Your task to perform on an android device: Open Chrome and go to the settings page Image 0: 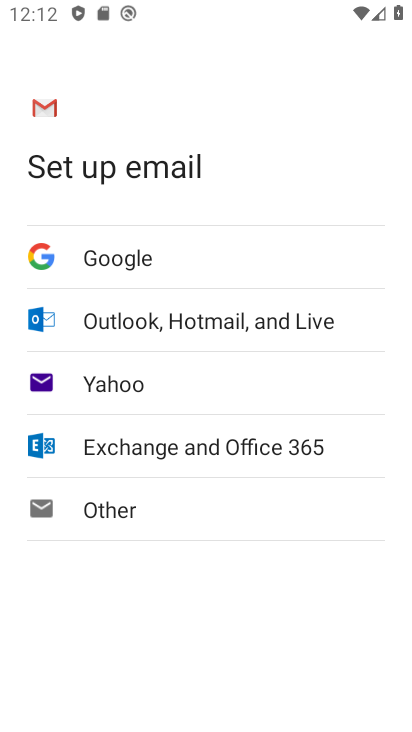
Step 0: press home button
Your task to perform on an android device: Open Chrome and go to the settings page Image 1: 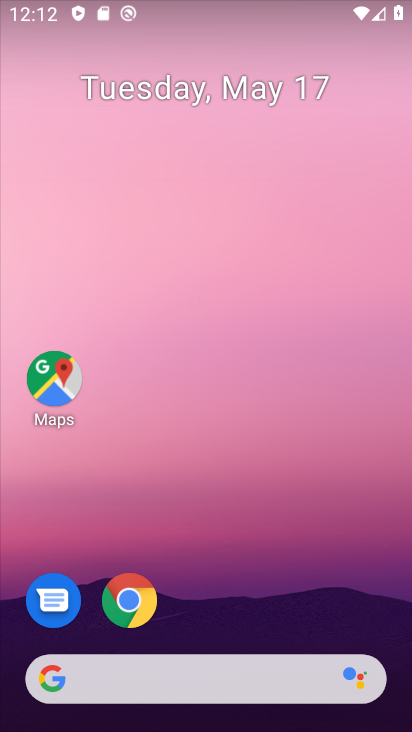
Step 1: click (199, 112)
Your task to perform on an android device: Open Chrome and go to the settings page Image 2: 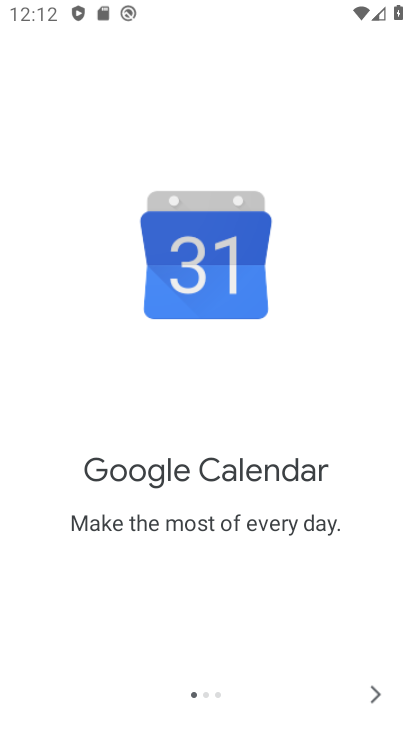
Step 2: press home button
Your task to perform on an android device: Open Chrome and go to the settings page Image 3: 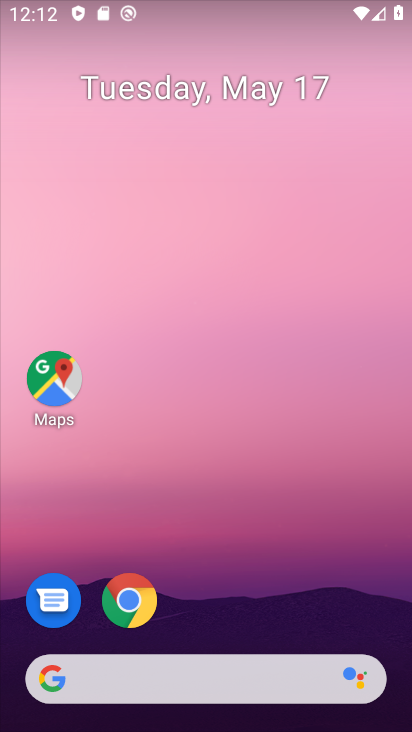
Step 3: click (126, 605)
Your task to perform on an android device: Open Chrome and go to the settings page Image 4: 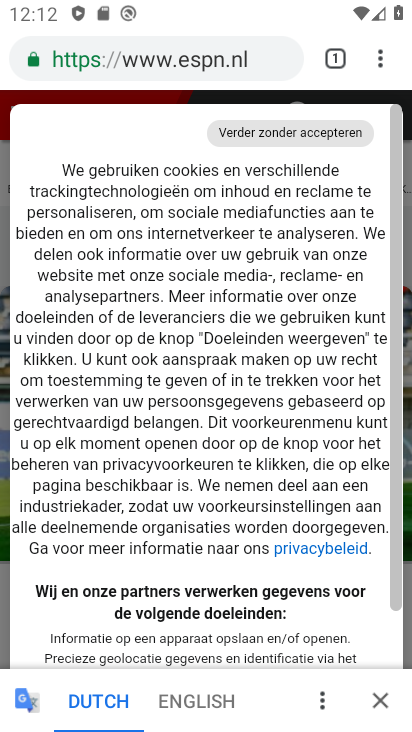
Step 4: click (381, 88)
Your task to perform on an android device: Open Chrome and go to the settings page Image 5: 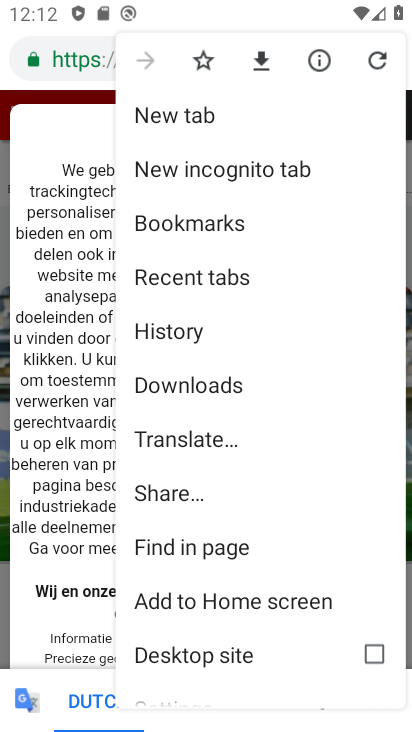
Step 5: drag from (198, 552) to (215, 227)
Your task to perform on an android device: Open Chrome and go to the settings page Image 6: 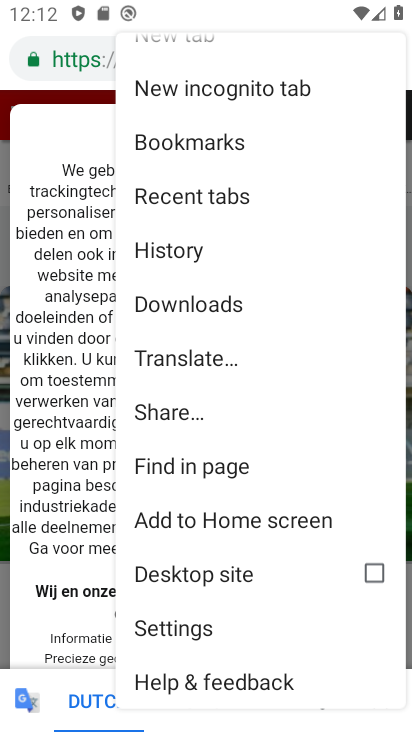
Step 6: click (167, 642)
Your task to perform on an android device: Open Chrome and go to the settings page Image 7: 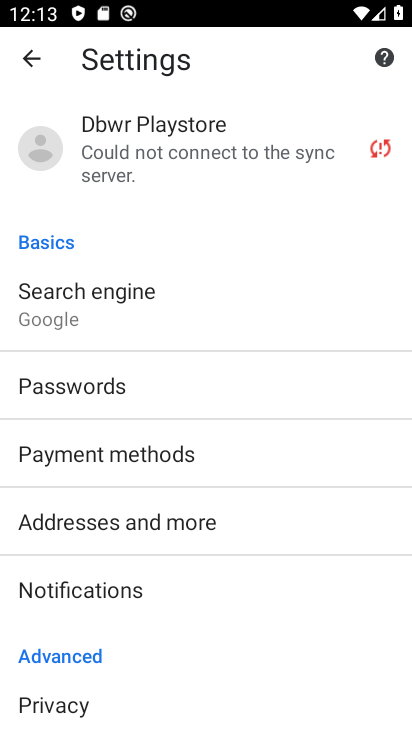
Step 7: task complete